Your task to perform on an android device: Open Android settings Image 0: 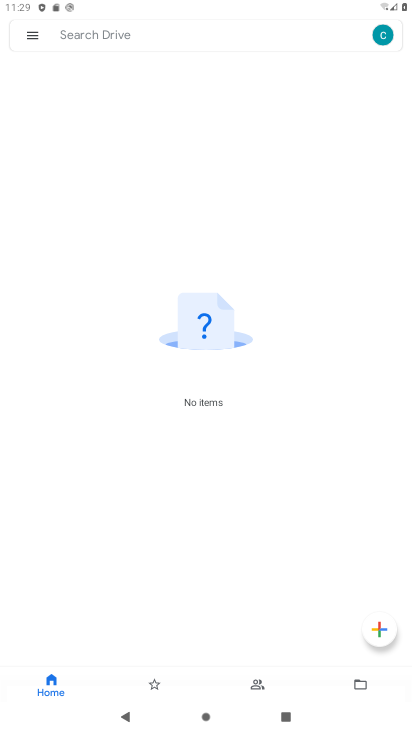
Step 0: press home button
Your task to perform on an android device: Open Android settings Image 1: 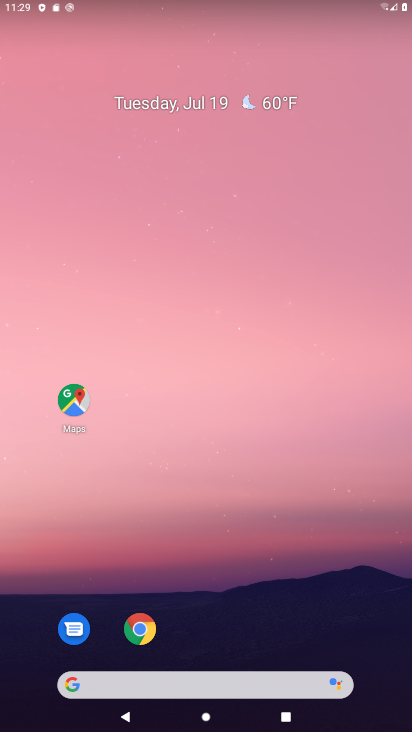
Step 1: drag from (289, 616) to (291, 110)
Your task to perform on an android device: Open Android settings Image 2: 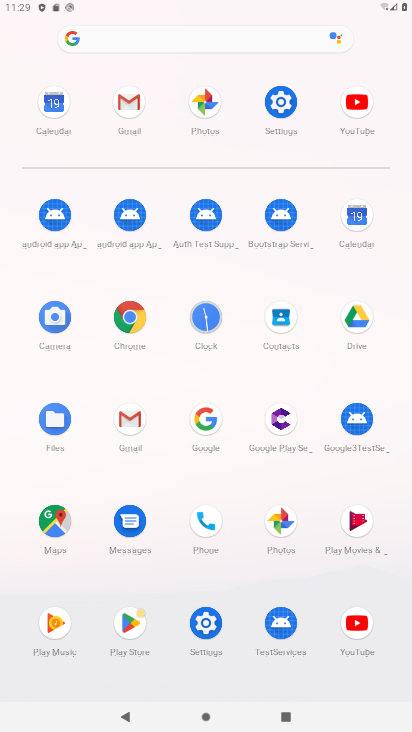
Step 2: click (291, 110)
Your task to perform on an android device: Open Android settings Image 3: 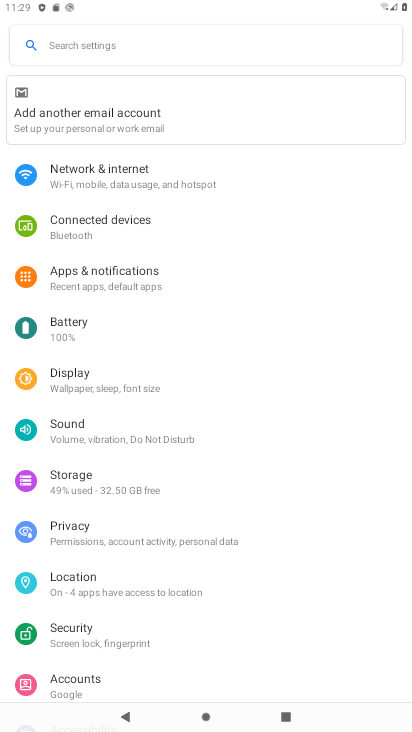
Step 3: drag from (163, 554) to (153, 91)
Your task to perform on an android device: Open Android settings Image 4: 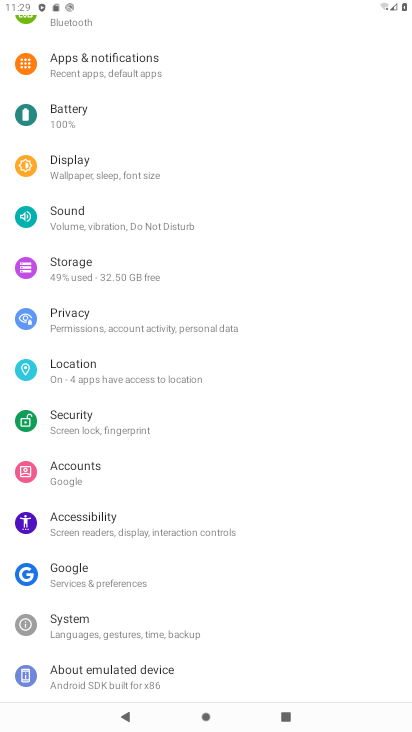
Step 4: click (162, 623)
Your task to perform on an android device: Open Android settings Image 5: 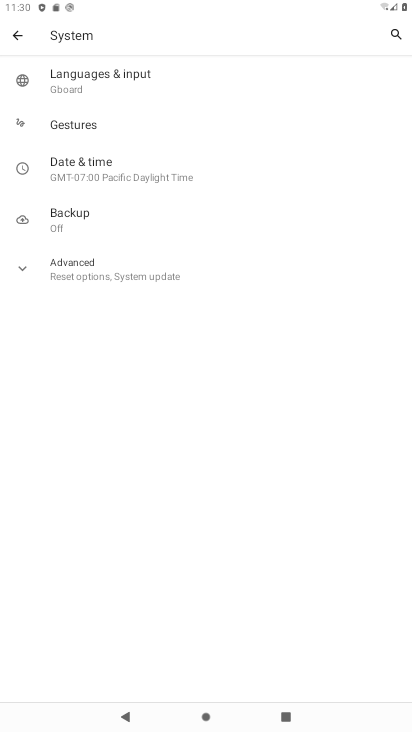
Step 5: task complete